Your task to perform on an android device: toggle data saver in the chrome app Image 0: 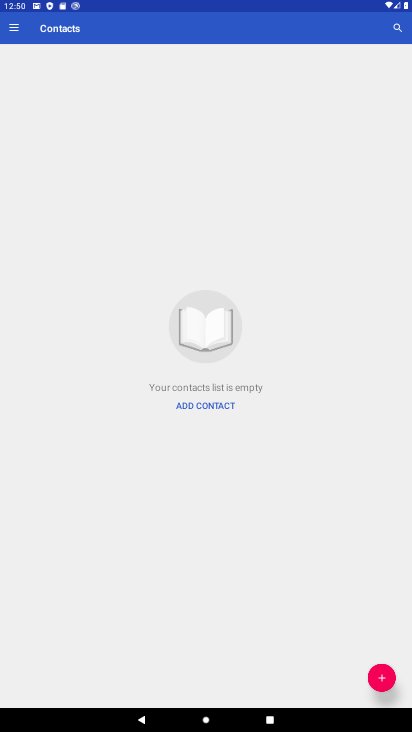
Step 0: press home button
Your task to perform on an android device: toggle data saver in the chrome app Image 1: 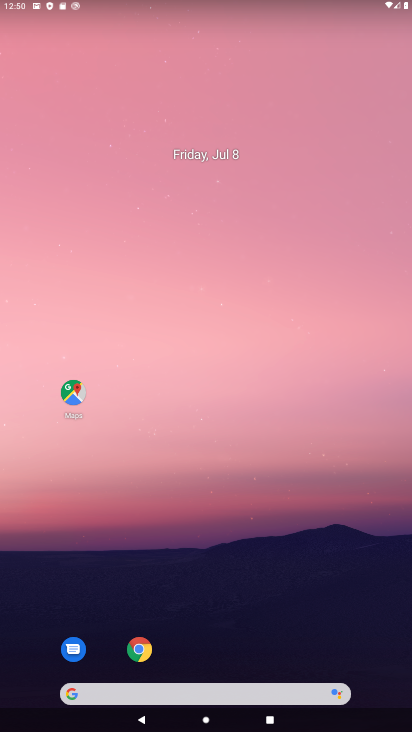
Step 1: drag from (273, 589) to (270, 130)
Your task to perform on an android device: toggle data saver in the chrome app Image 2: 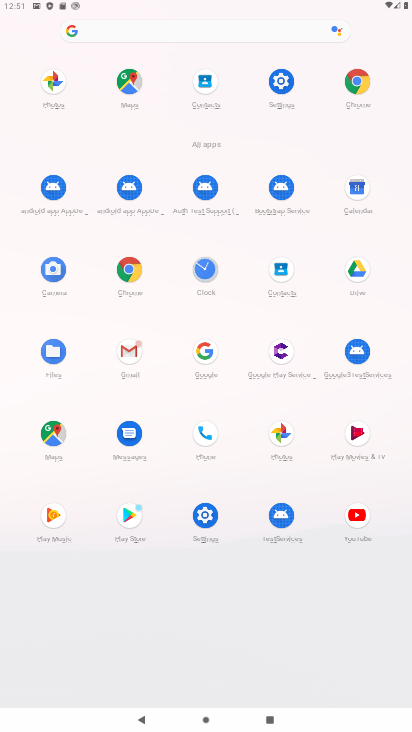
Step 2: click (362, 82)
Your task to perform on an android device: toggle data saver in the chrome app Image 3: 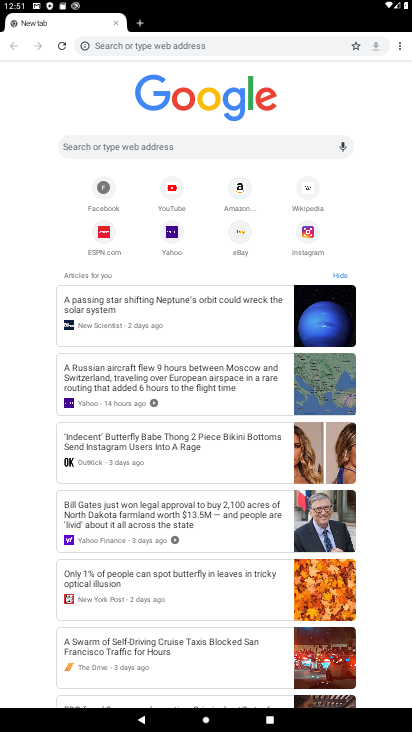
Step 3: drag from (403, 41) to (302, 217)
Your task to perform on an android device: toggle data saver in the chrome app Image 4: 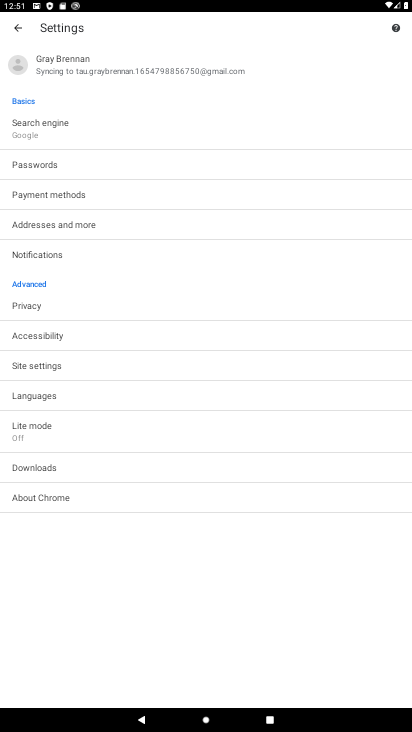
Step 4: click (52, 433)
Your task to perform on an android device: toggle data saver in the chrome app Image 5: 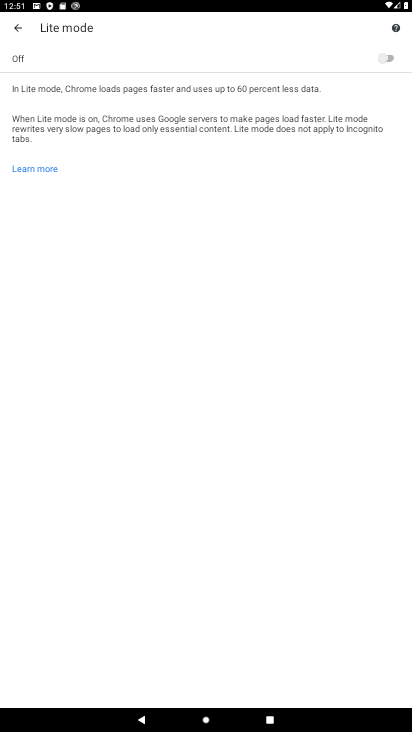
Step 5: click (390, 55)
Your task to perform on an android device: toggle data saver in the chrome app Image 6: 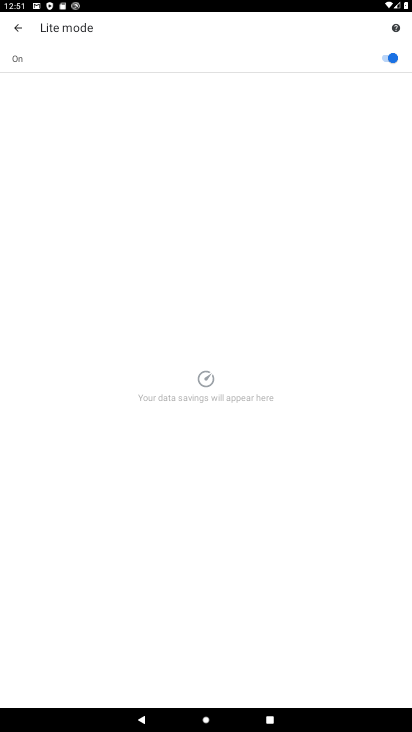
Step 6: task complete